Your task to perform on an android device: Add sony triple a to the cart on ebay Image 0: 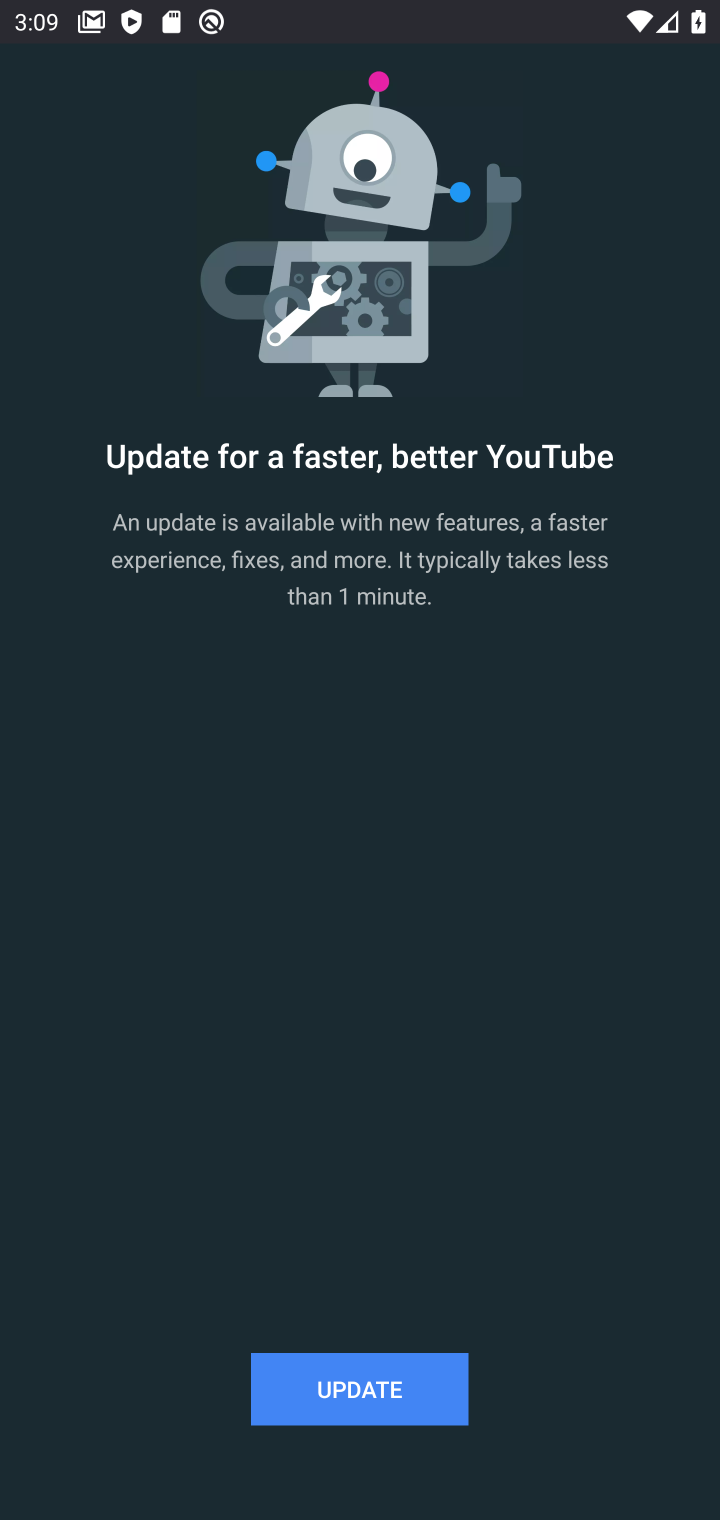
Step 0: drag from (338, 1333) to (518, 273)
Your task to perform on an android device: Add sony triple a to the cart on ebay Image 1: 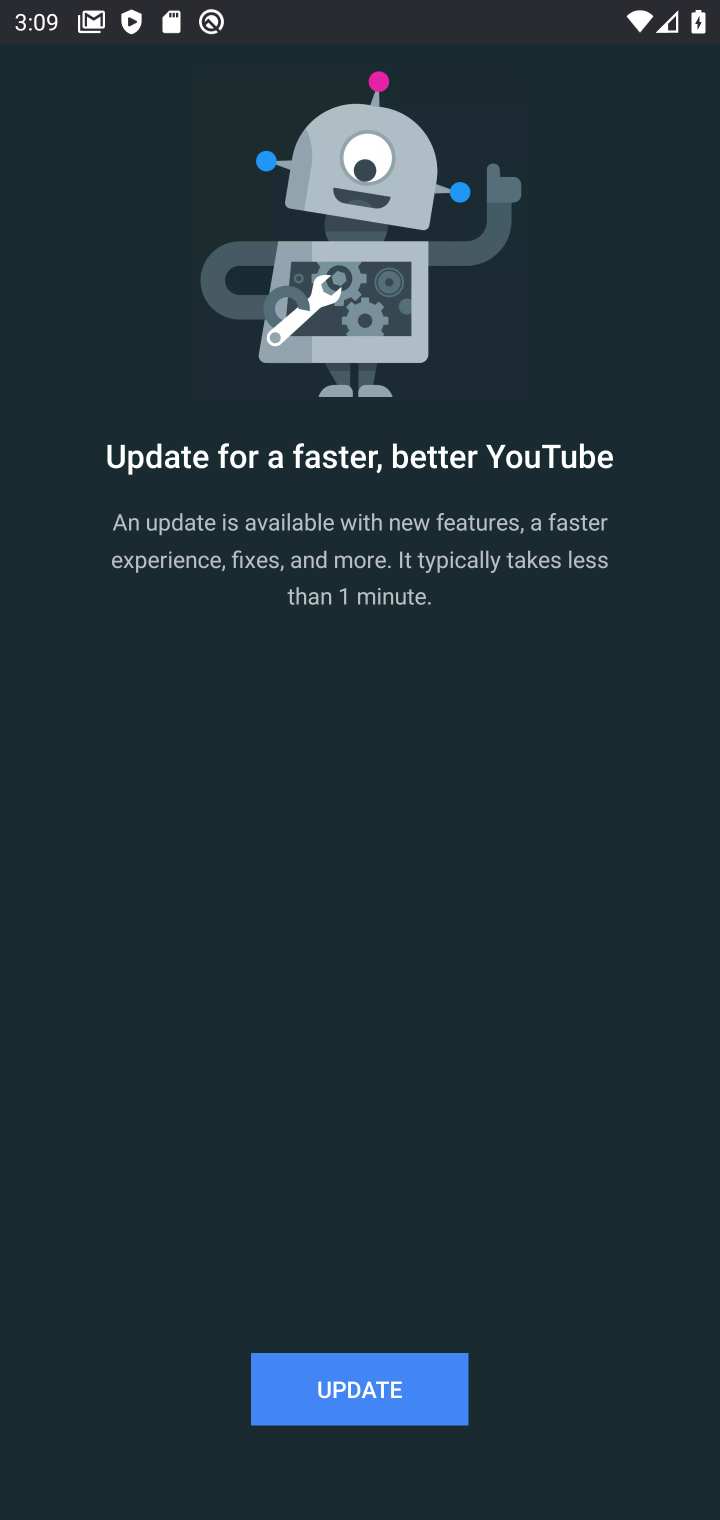
Step 1: press home button
Your task to perform on an android device: Add sony triple a to the cart on ebay Image 2: 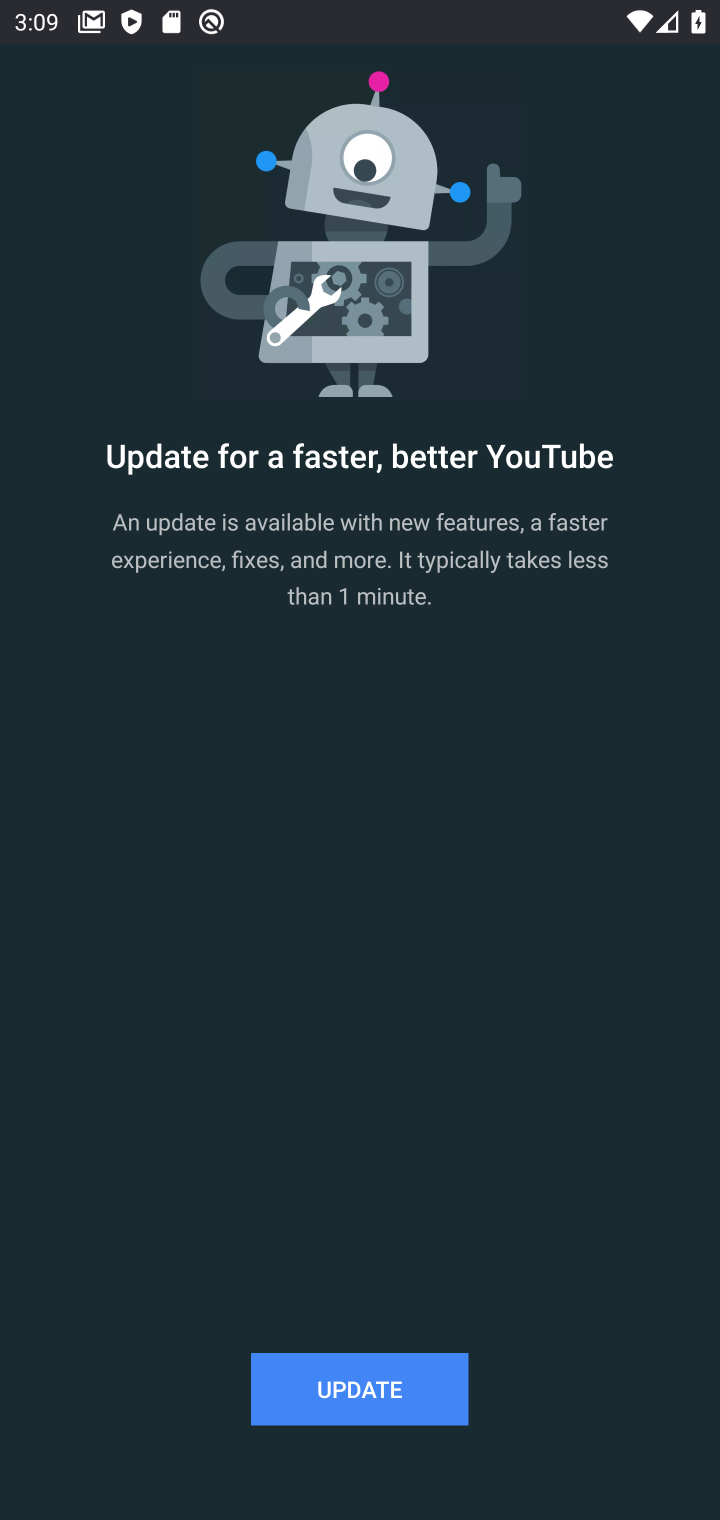
Step 2: press home button
Your task to perform on an android device: Add sony triple a to the cart on ebay Image 3: 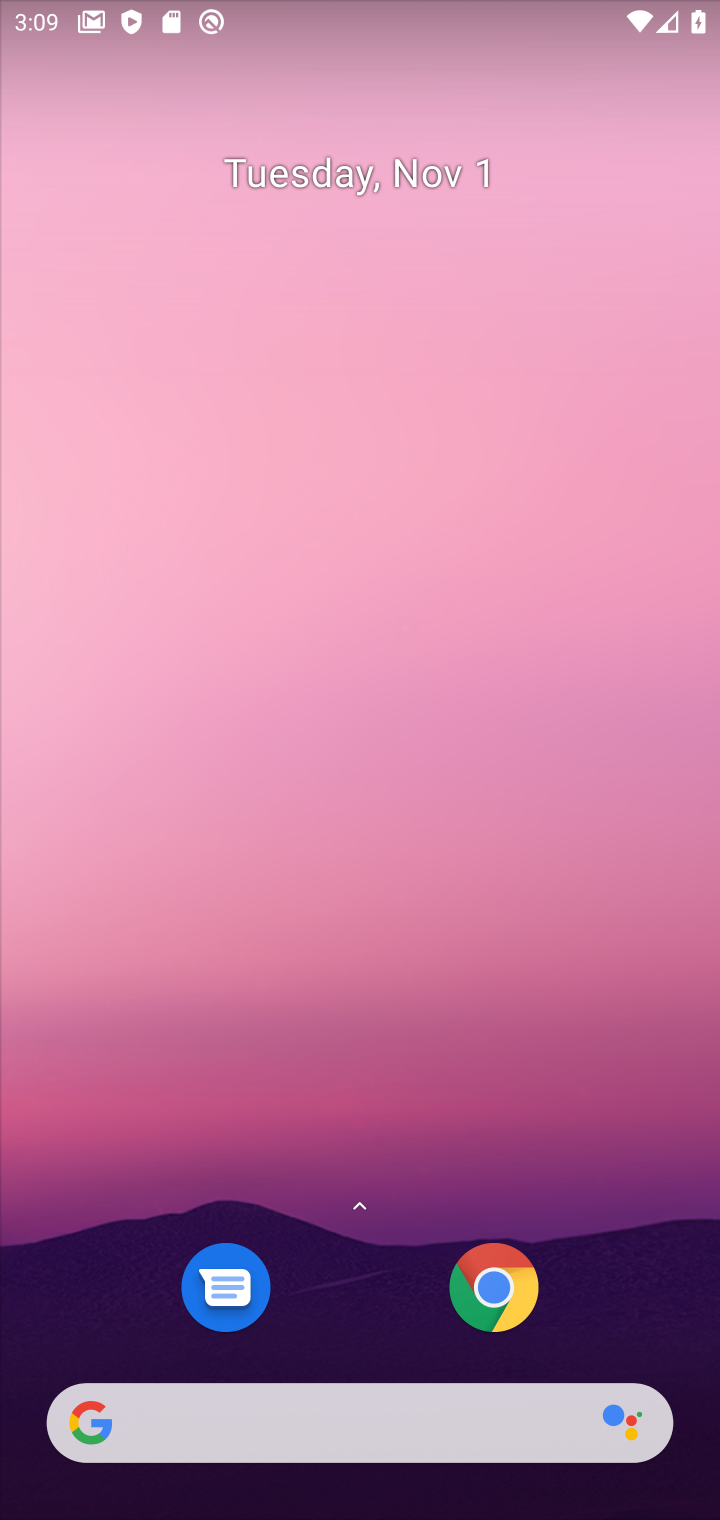
Step 3: drag from (379, 1075) to (677, 265)
Your task to perform on an android device: Add sony triple a to the cart on ebay Image 4: 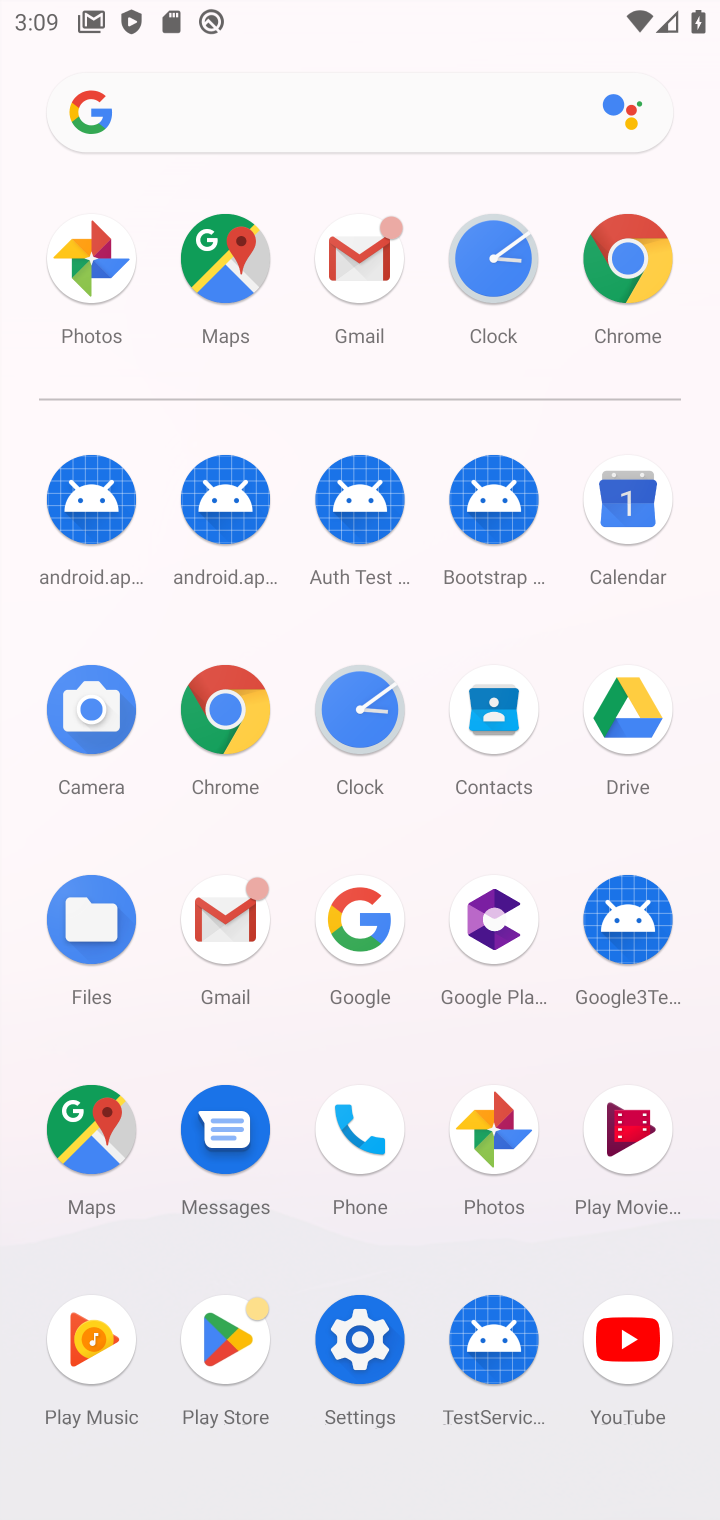
Step 4: click (226, 702)
Your task to perform on an android device: Add sony triple a to the cart on ebay Image 5: 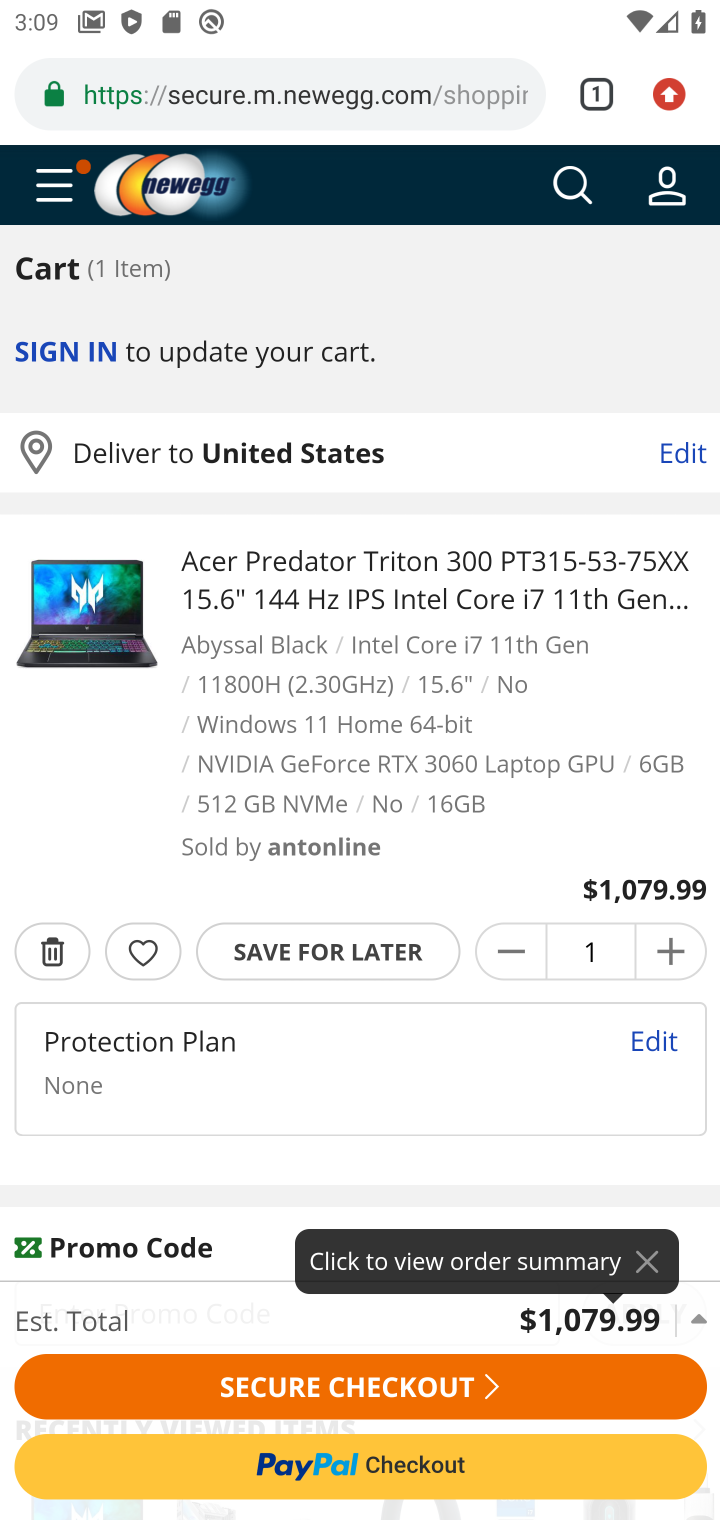
Step 5: click (302, 92)
Your task to perform on an android device: Add sony triple a to the cart on ebay Image 6: 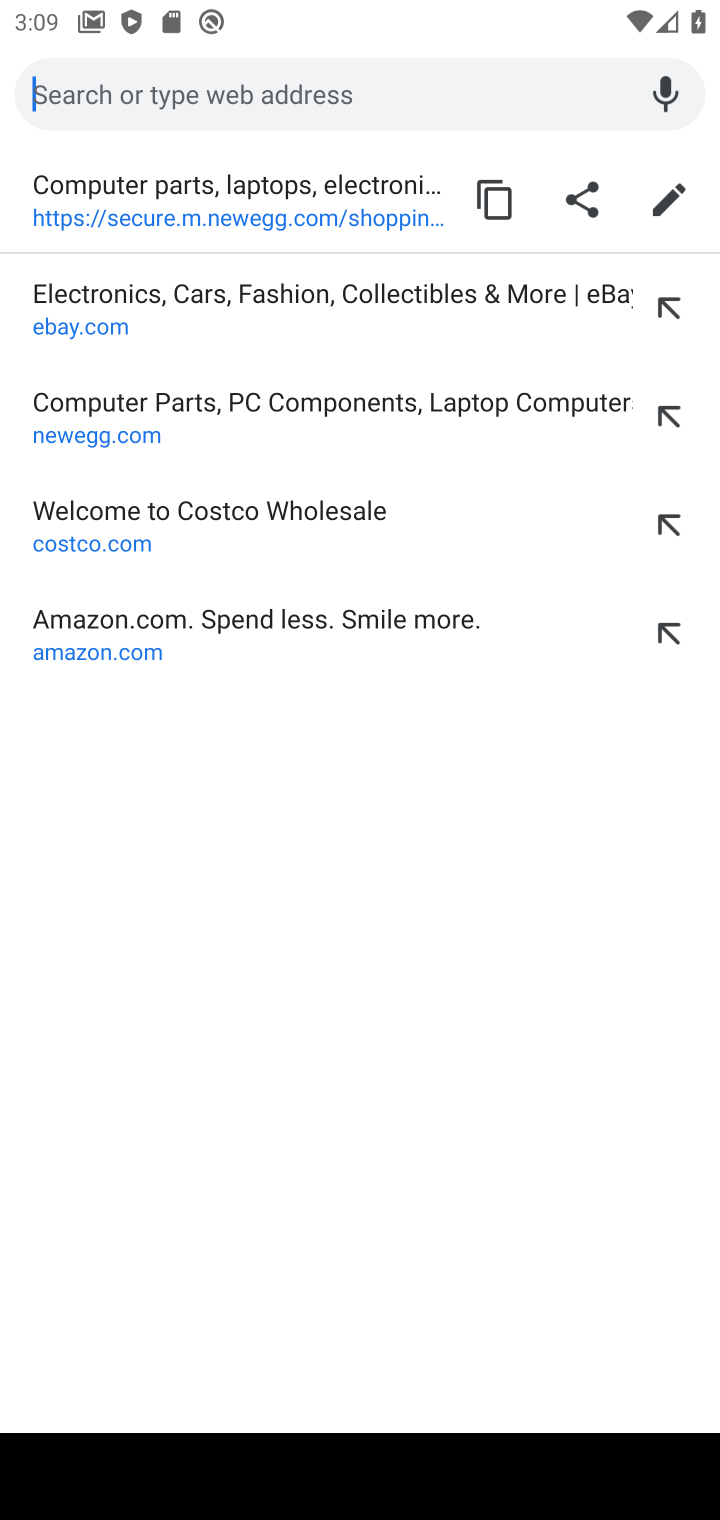
Step 6: type "ebay.com"
Your task to perform on an android device: Add sony triple a to the cart on ebay Image 7: 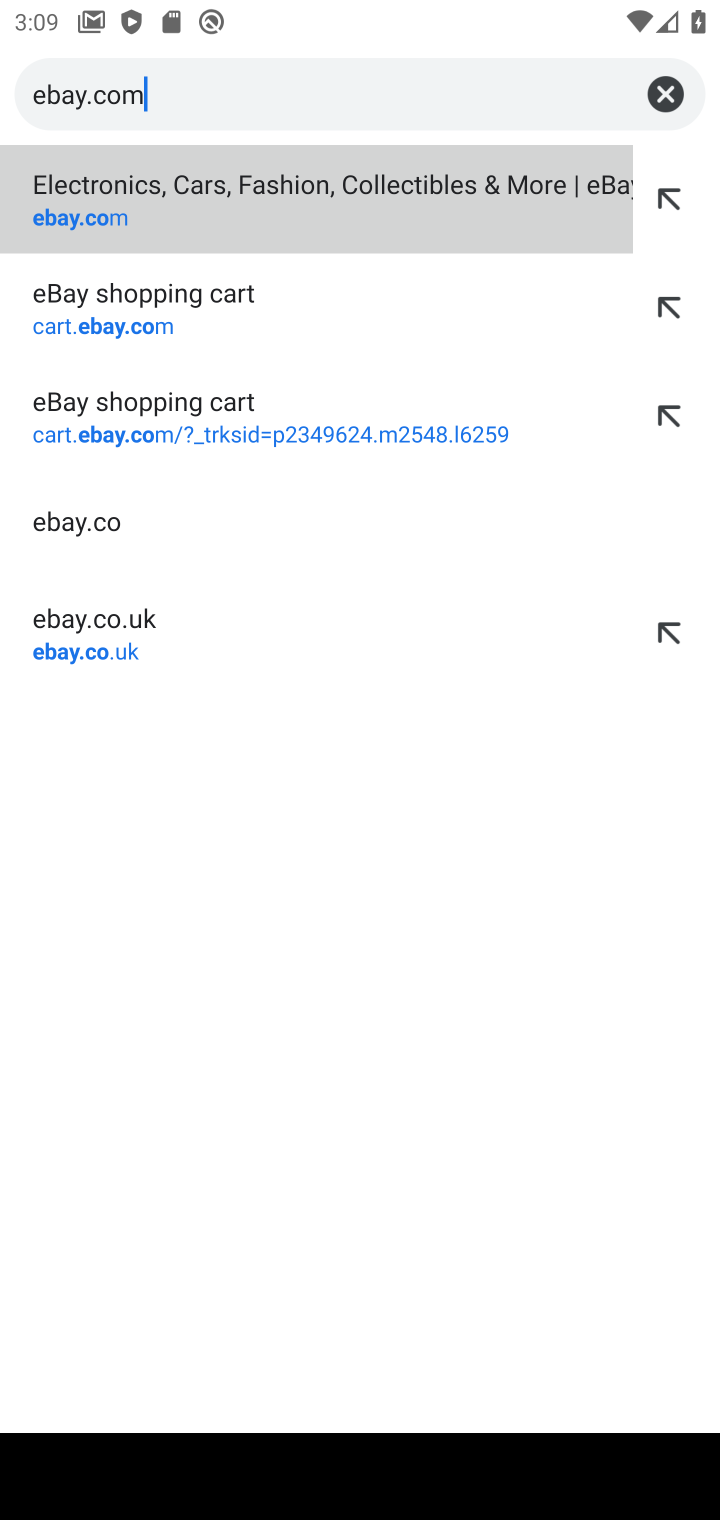
Step 7: press enter
Your task to perform on an android device: Add sony triple a to the cart on ebay Image 8: 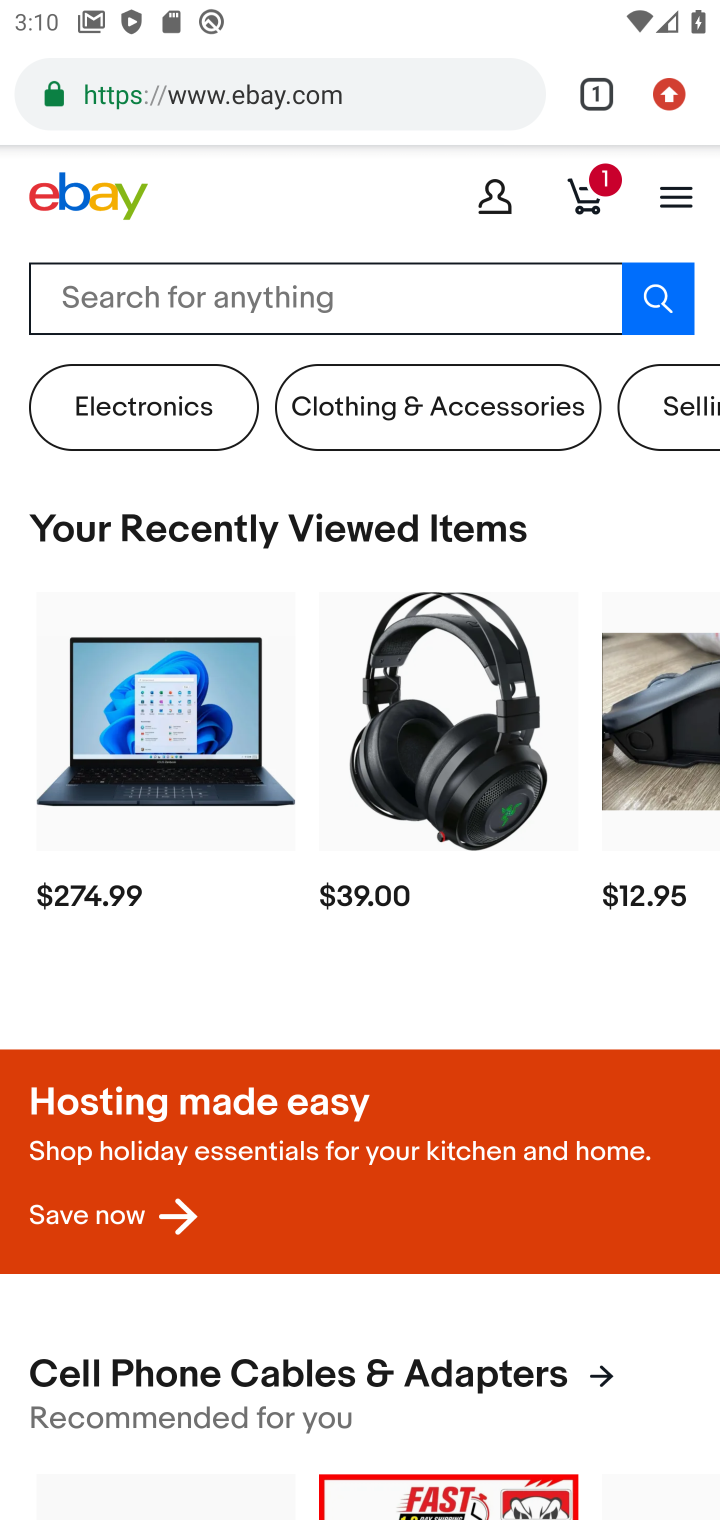
Step 8: click (298, 296)
Your task to perform on an android device: Add sony triple a to the cart on ebay Image 9: 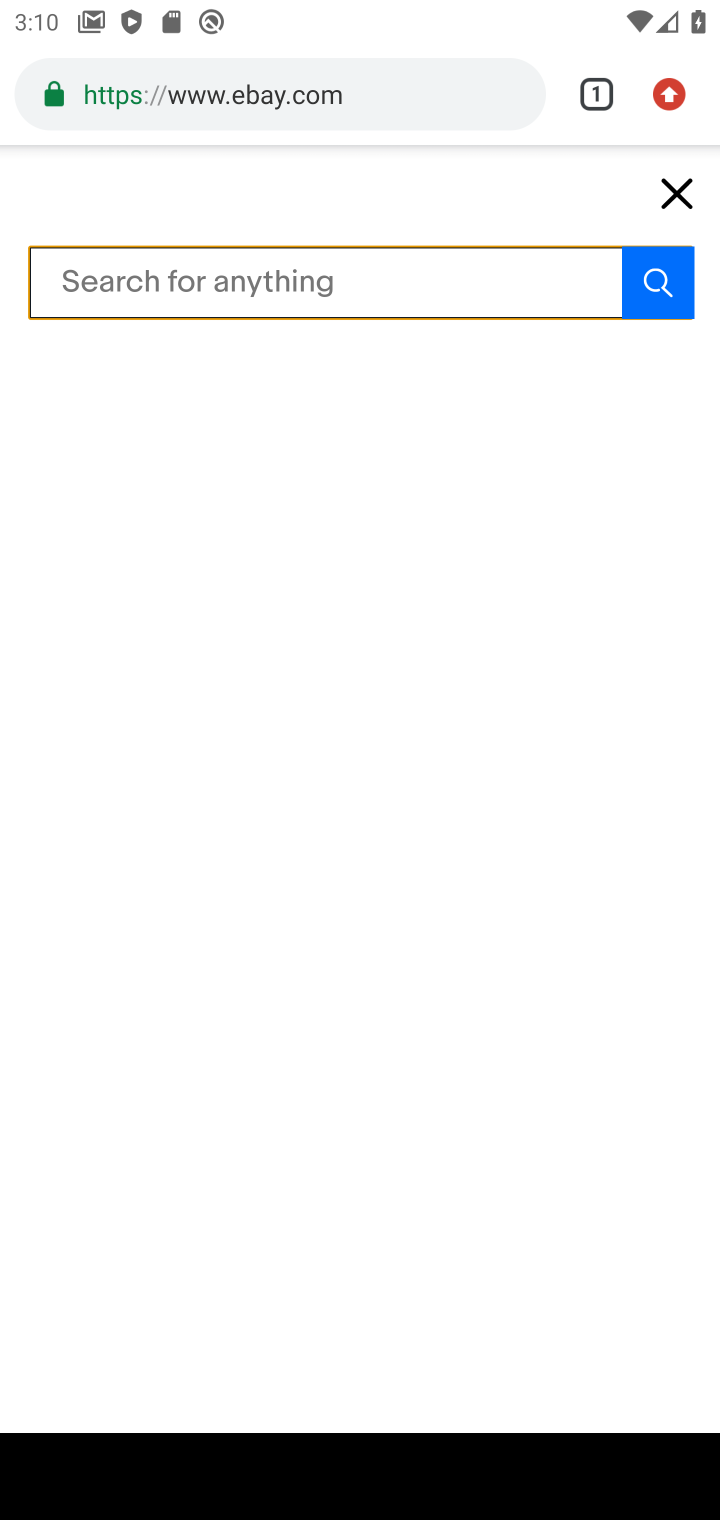
Step 9: type "sony triple"
Your task to perform on an android device: Add sony triple a to the cart on ebay Image 10: 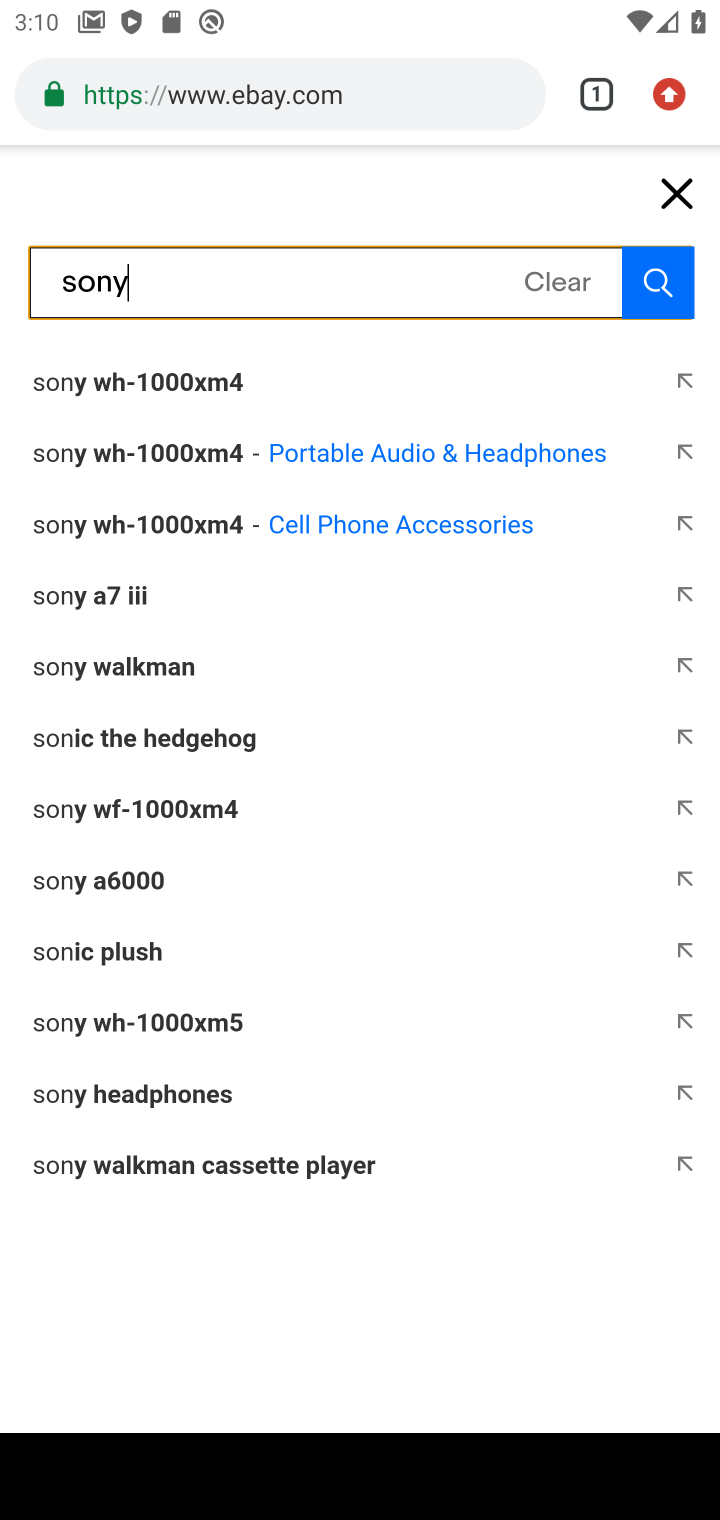
Step 10: press enter
Your task to perform on an android device: Add sony triple a to the cart on ebay Image 11: 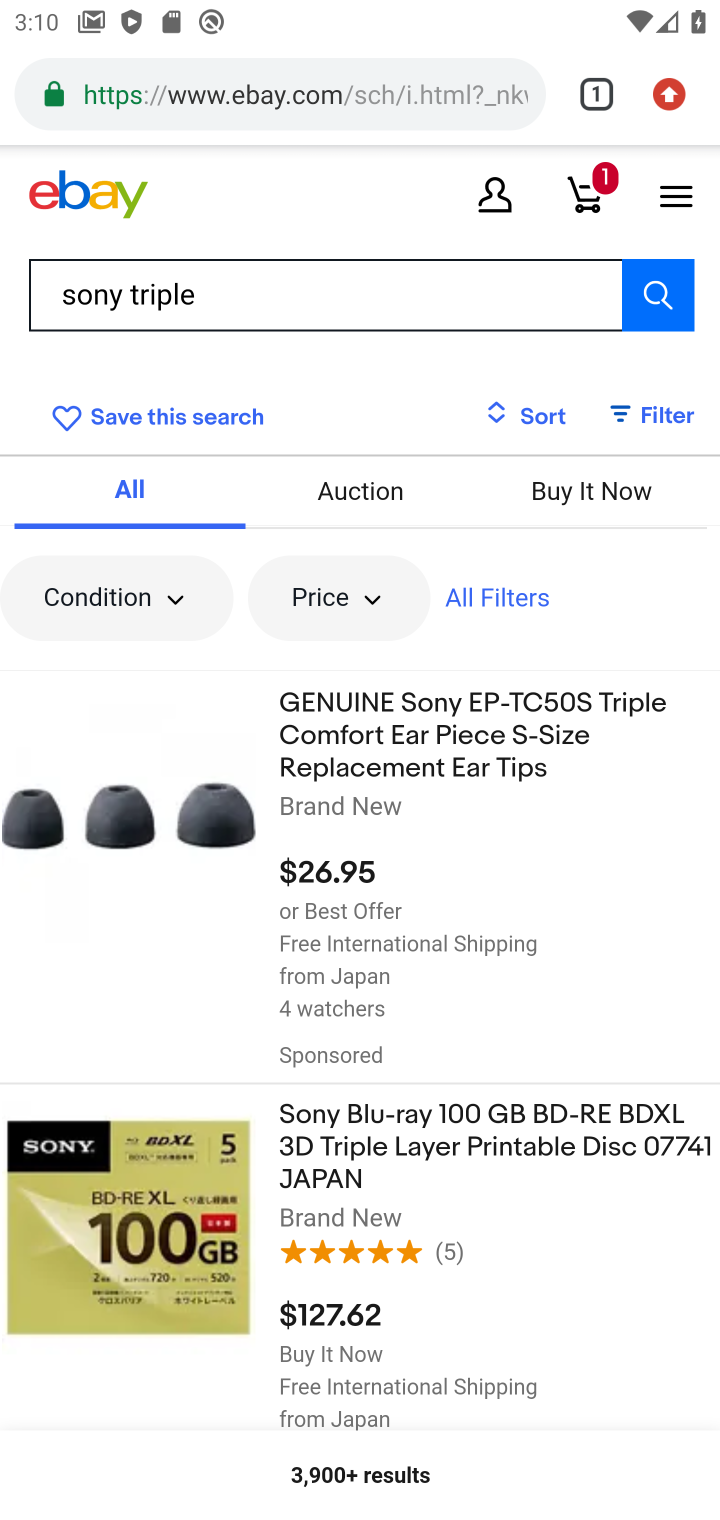
Step 11: task complete